Your task to perform on an android device: open device folders in google photos Image 0: 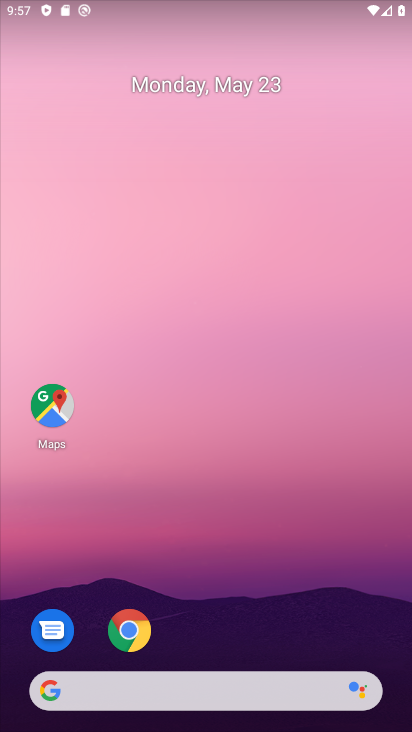
Step 0: drag from (340, 655) to (362, 8)
Your task to perform on an android device: open device folders in google photos Image 1: 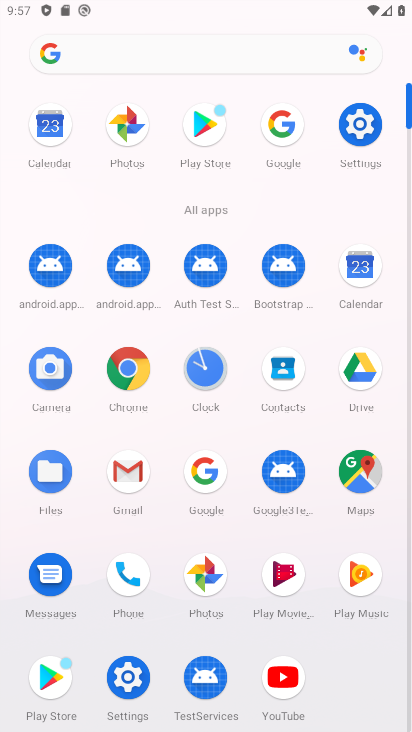
Step 1: click (206, 581)
Your task to perform on an android device: open device folders in google photos Image 2: 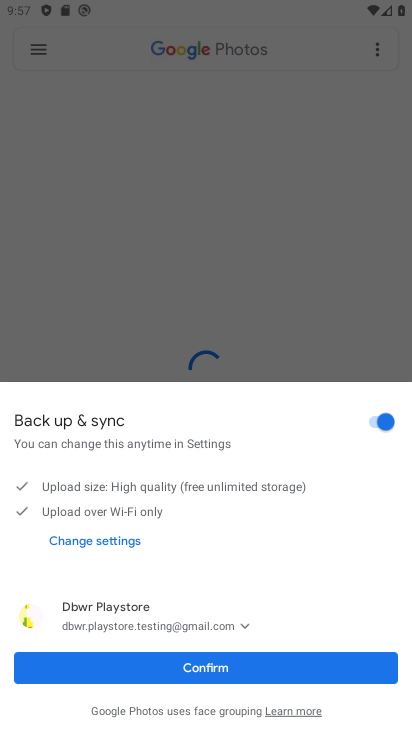
Step 2: click (202, 668)
Your task to perform on an android device: open device folders in google photos Image 3: 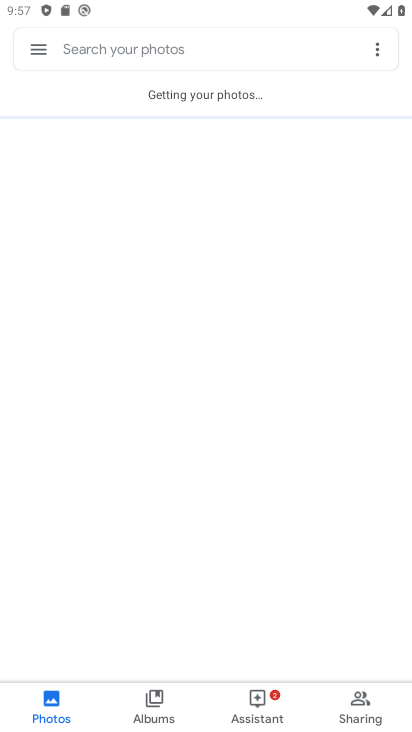
Step 3: click (37, 54)
Your task to perform on an android device: open device folders in google photos Image 4: 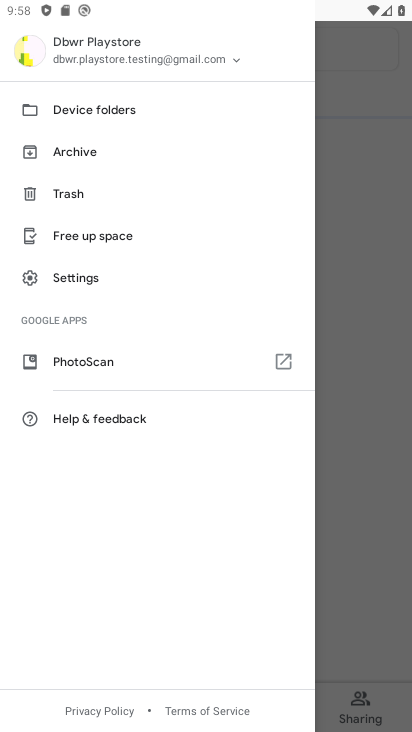
Step 4: click (65, 117)
Your task to perform on an android device: open device folders in google photos Image 5: 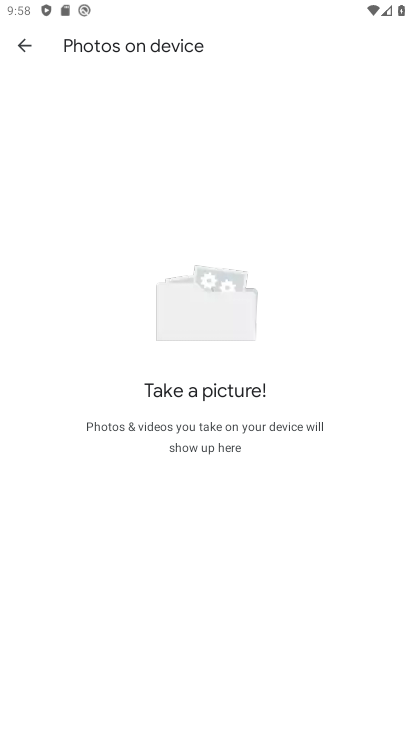
Step 5: task complete